Your task to perform on an android device: refresh tabs in the chrome app Image 0: 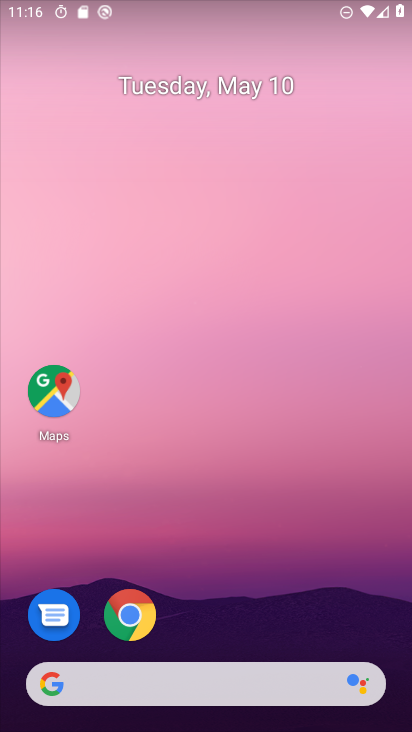
Step 0: drag from (198, 625) to (226, 112)
Your task to perform on an android device: refresh tabs in the chrome app Image 1: 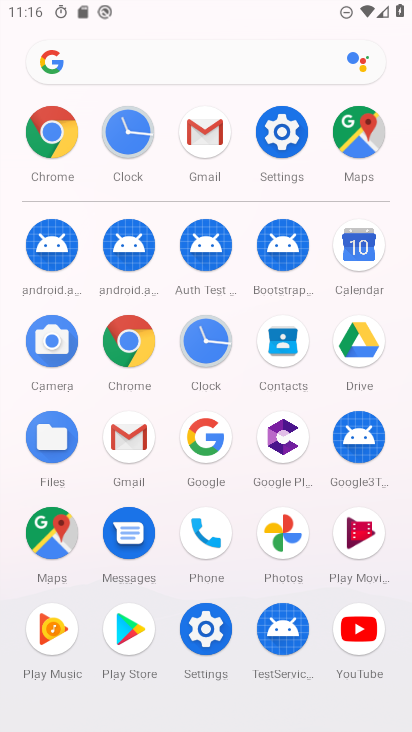
Step 1: click (128, 339)
Your task to perform on an android device: refresh tabs in the chrome app Image 2: 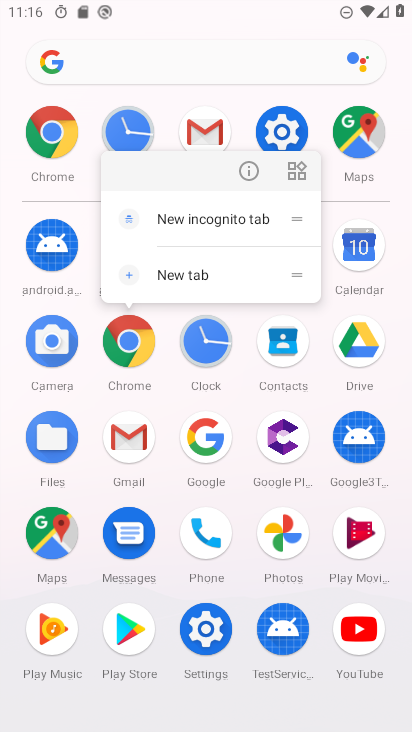
Step 2: click (249, 172)
Your task to perform on an android device: refresh tabs in the chrome app Image 3: 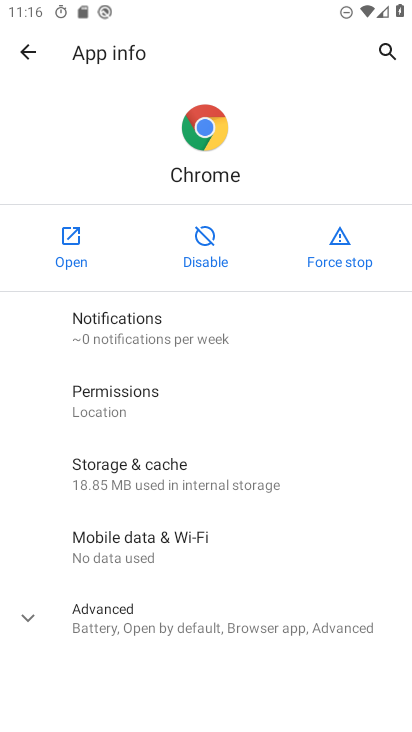
Step 3: click (76, 244)
Your task to perform on an android device: refresh tabs in the chrome app Image 4: 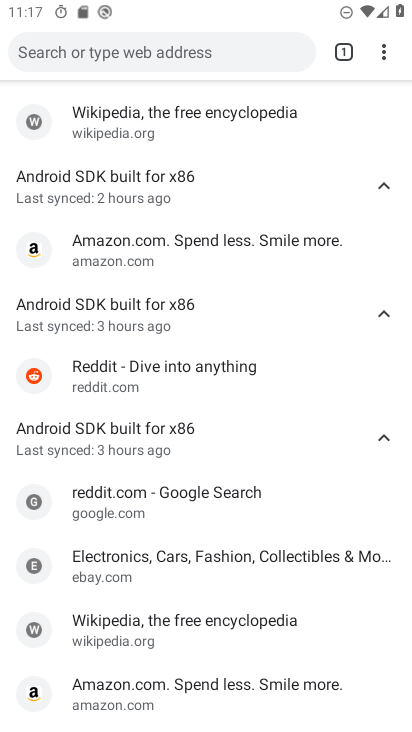
Step 4: click (385, 37)
Your task to perform on an android device: refresh tabs in the chrome app Image 5: 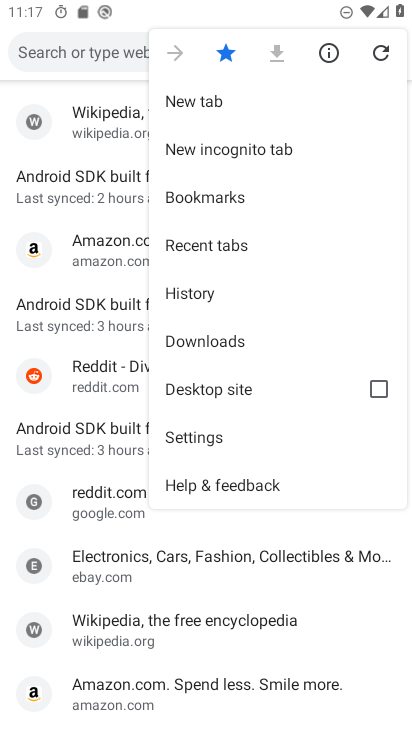
Step 5: click (386, 38)
Your task to perform on an android device: refresh tabs in the chrome app Image 6: 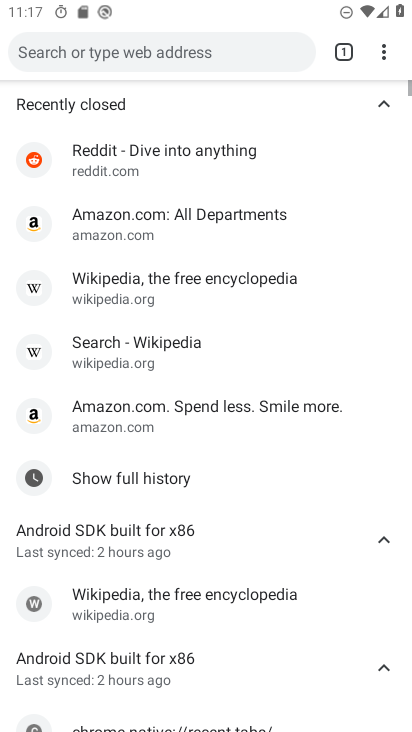
Step 6: task complete